Your task to perform on an android device: Go to Maps Image 0: 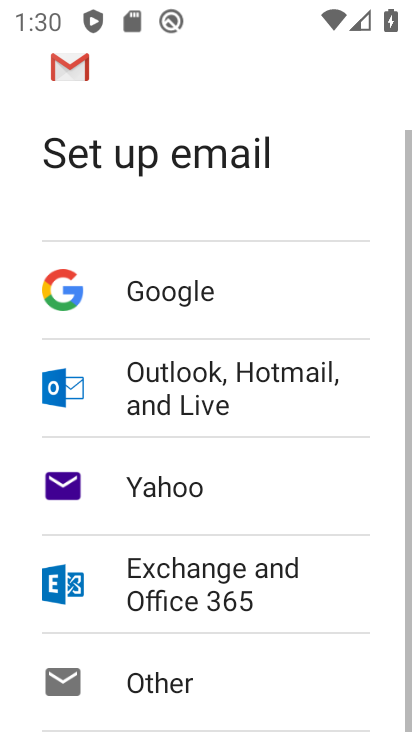
Step 0: press home button
Your task to perform on an android device: Go to Maps Image 1: 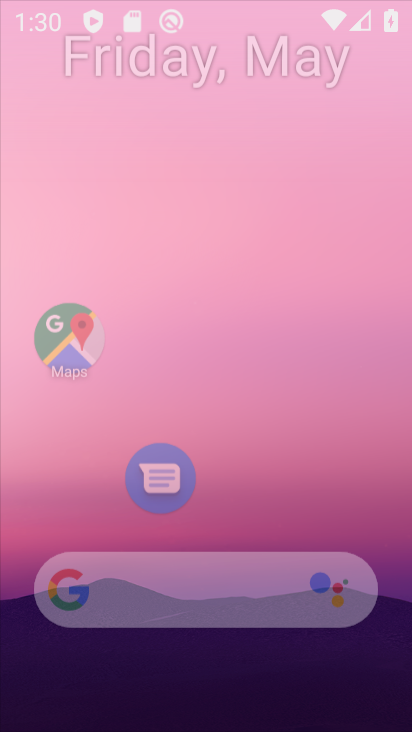
Step 1: drag from (158, 637) to (215, 151)
Your task to perform on an android device: Go to Maps Image 2: 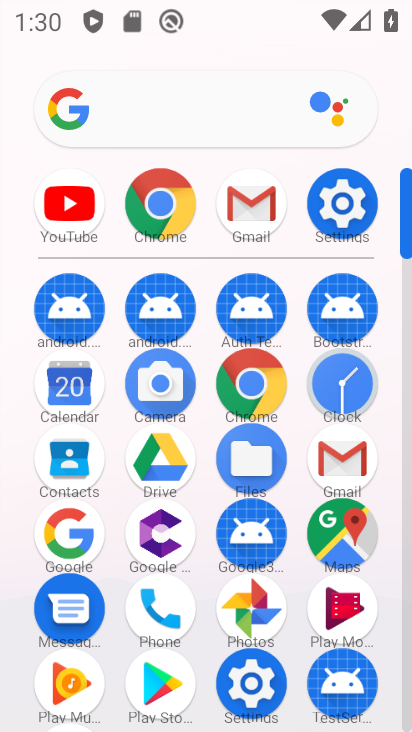
Step 2: click (342, 524)
Your task to perform on an android device: Go to Maps Image 3: 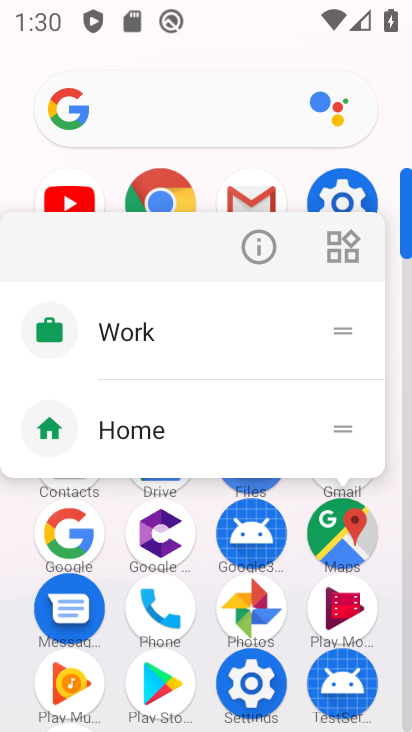
Step 3: click (258, 250)
Your task to perform on an android device: Go to Maps Image 4: 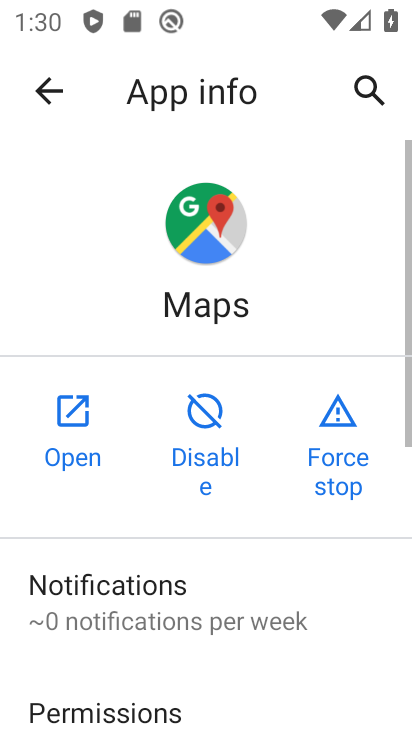
Step 4: click (70, 418)
Your task to perform on an android device: Go to Maps Image 5: 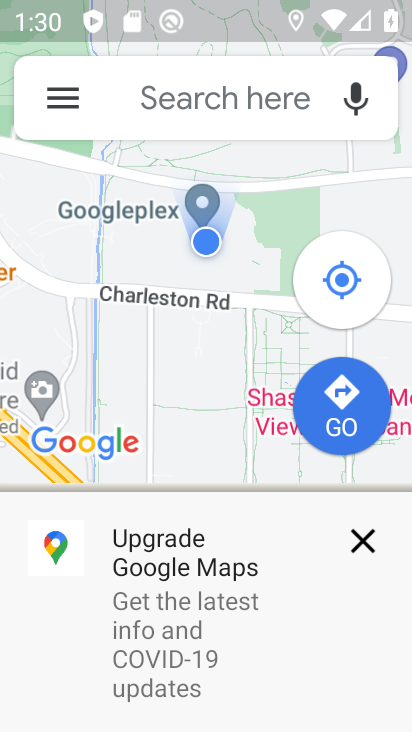
Step 5: task complete